Your task to perform on an android device: delete the emails in spam in the gmail app Image 0: 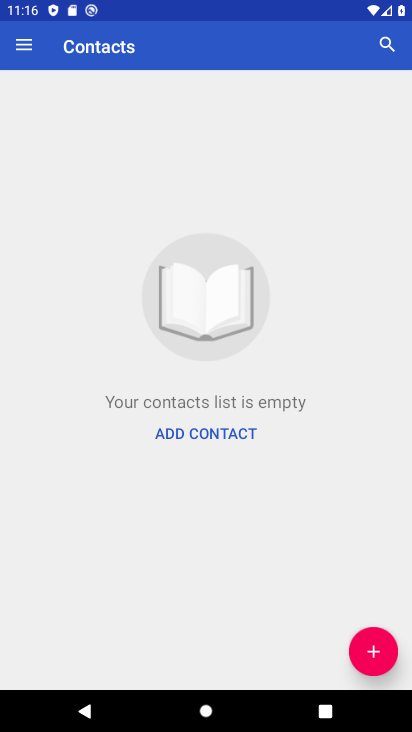
Step 0: press home button
Your task to perform on an android device: delete the emails in spam in the gmail app Image 1: 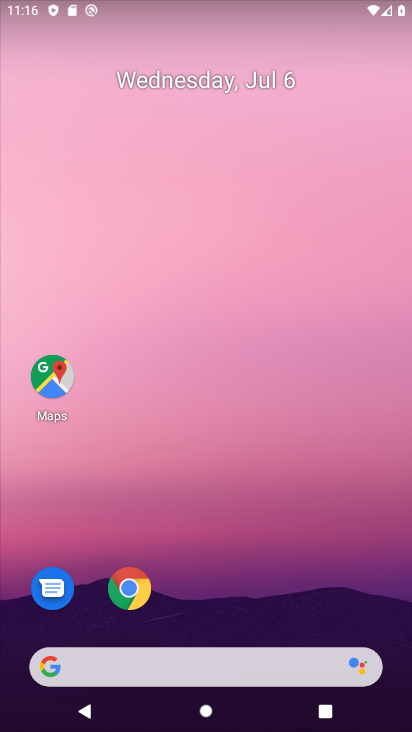
Step 1: drag from (170, 627) to (372, 20)
Your task to perform on an android device: delete the emails in spam in the gmail app Image 2: 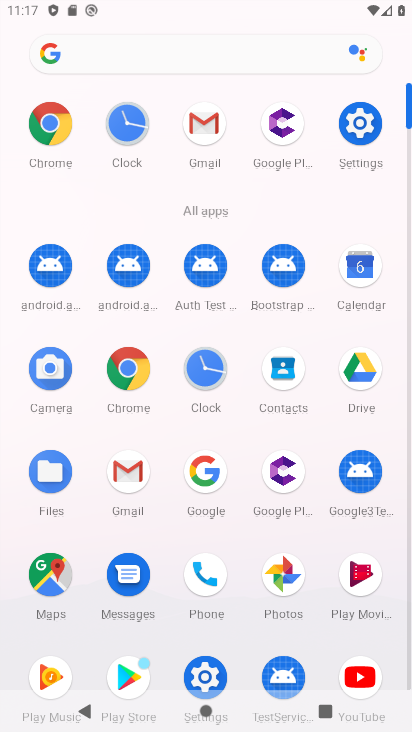
Step 2: click (124, 476)
Your task to perform on an android device: delete the emails in spam in the gmail app Image 3: 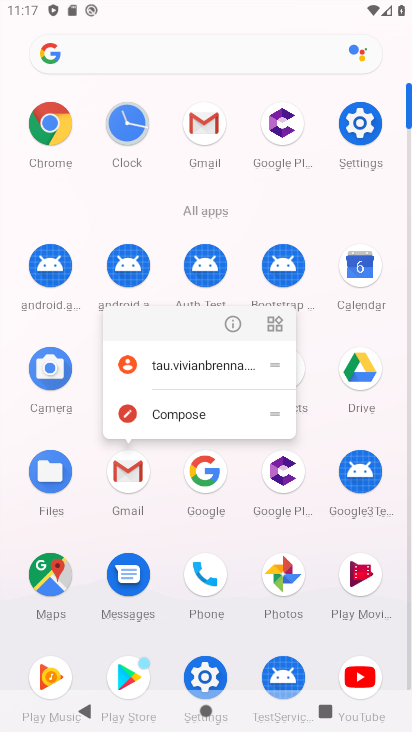
Step 3: click (228, 312)
Your task to perform on an android device: delete the emails in spam in the gmail app Image 4: 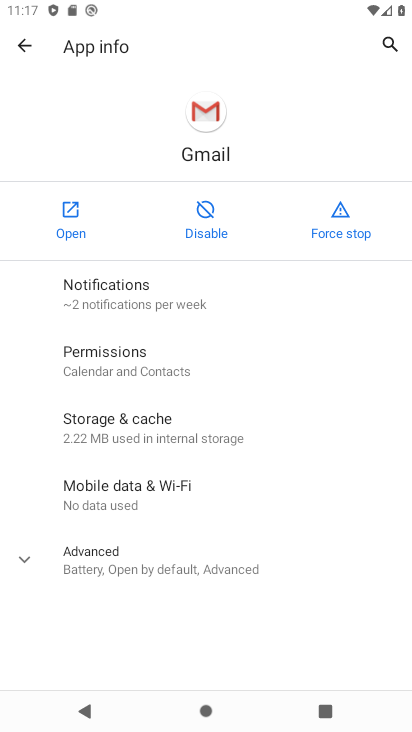
Step 4: click (73, 222)
Your task to perform on an android device: delete the emails in spam in the gmail app Image 5: 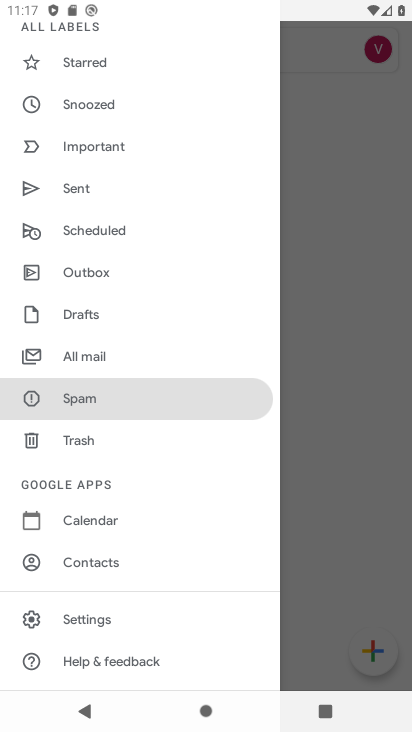
Step 5: click (84, 405)
Your task to perform on an android device: delete the emails in spam in the gmail app Image 6: 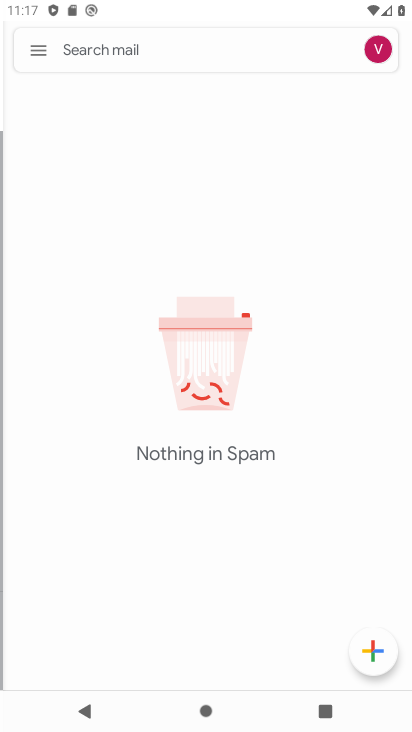
Step 6: click (328, 407)
Your task to perform on an android device: delete the emails in spam in the gmail app Image 7: 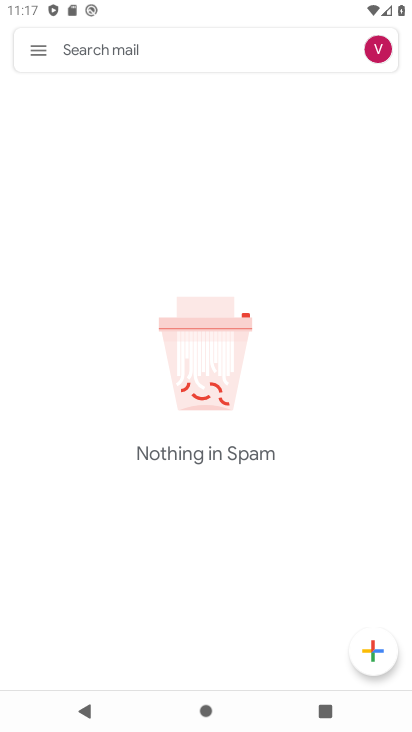
Step 7: task complete